Your task to perform on an android device: stop showing notifications on the lock screen Image 0: 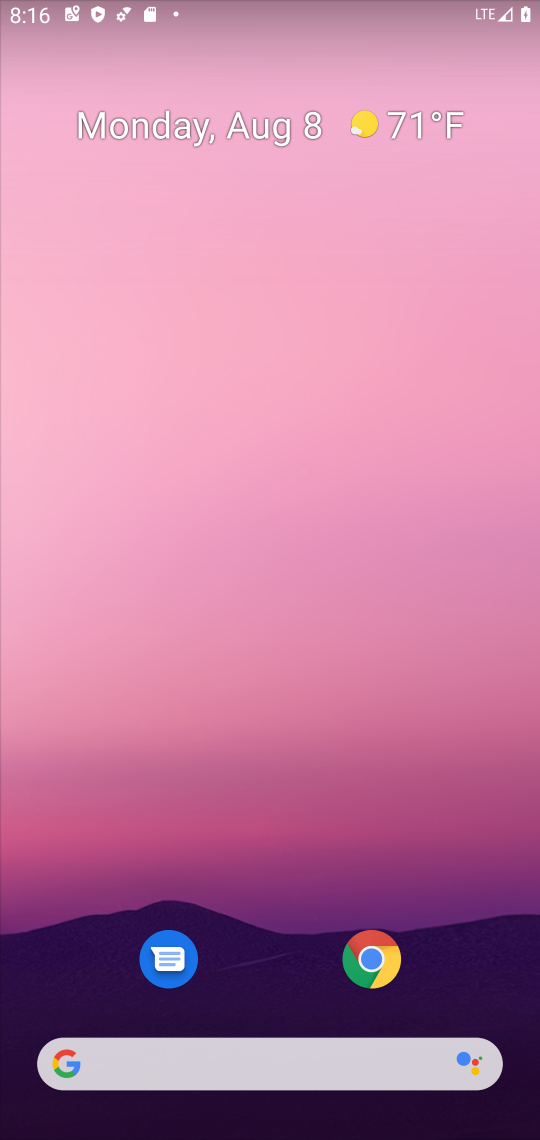
Step 0: drag from (503, 953) to (225, 22)
Your task to perform on an android device: stop showing notifications on the lock screen Image 1: 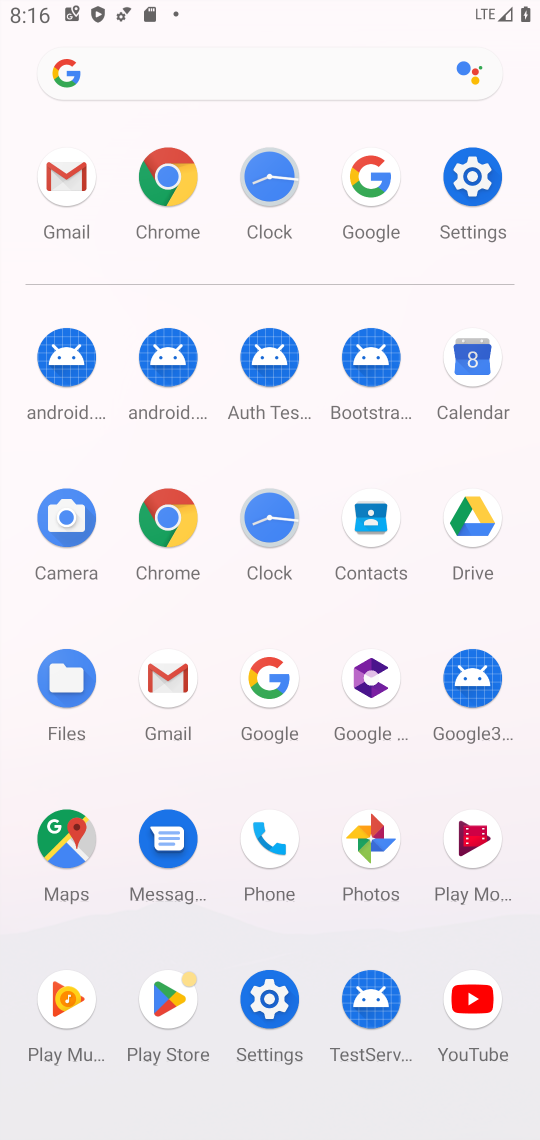
Step 1: click (265, 1008)
Your task to perform on an android device: stop showing notifications on the lock screen Image 2: 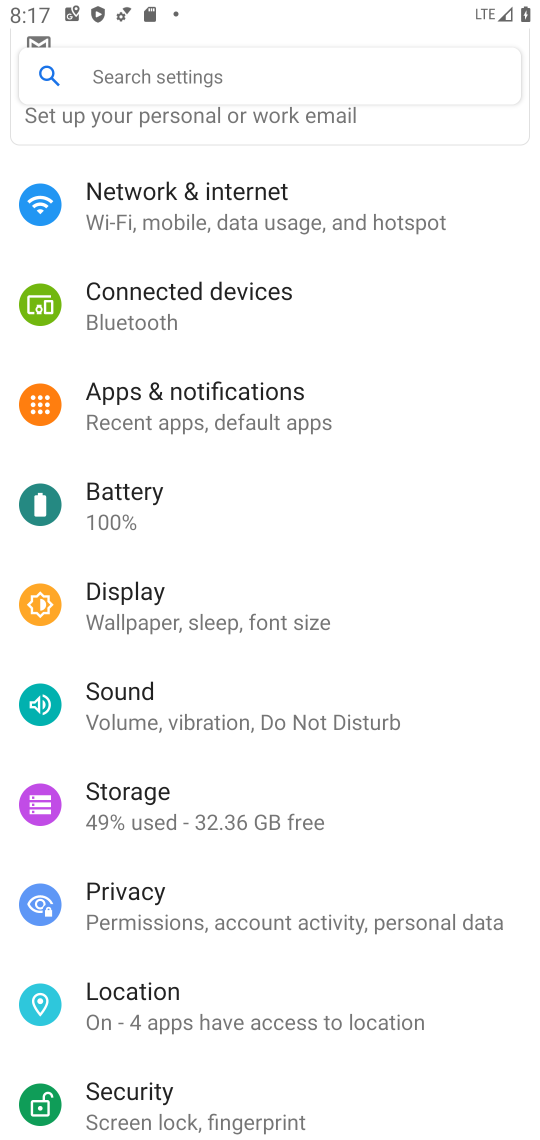
Step 2: click (226, 393)
Your task to perform on an android device: stop showing notifications on the lock screen Image 3: 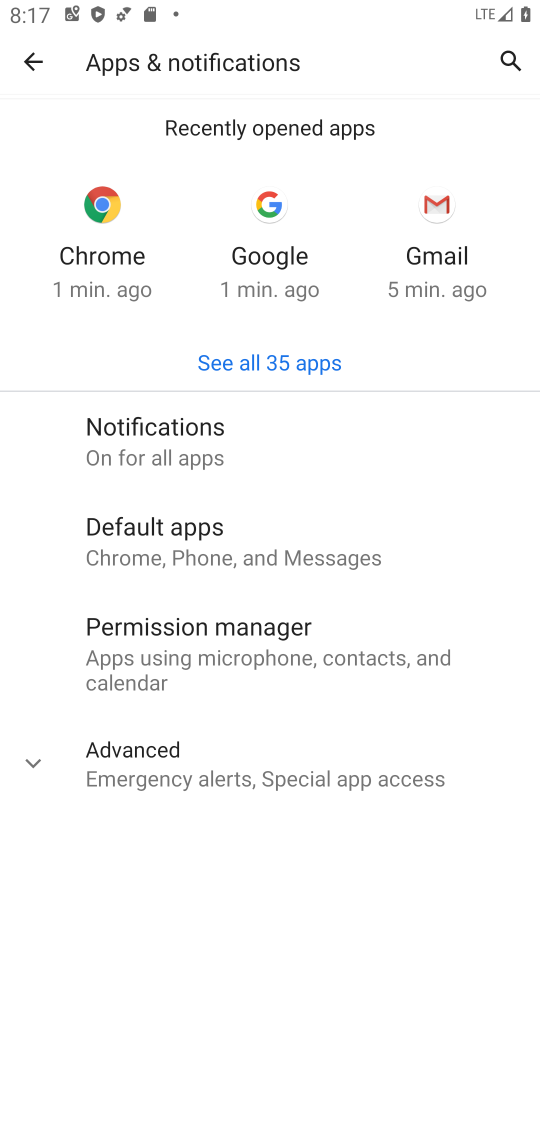
Step 3: click (248, 457)
Your task to perform on an android device: stop showing notifications on the lock screen Image 4: 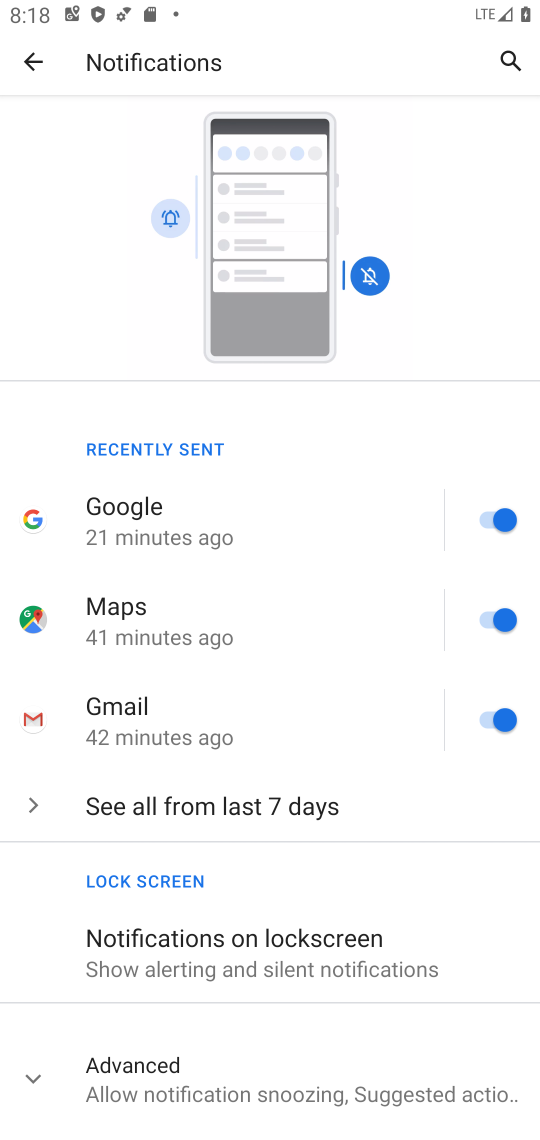
Step 4: click (266, 960)
Your task to perform on an android device: stop showing notifications on the lock screen Image 5: 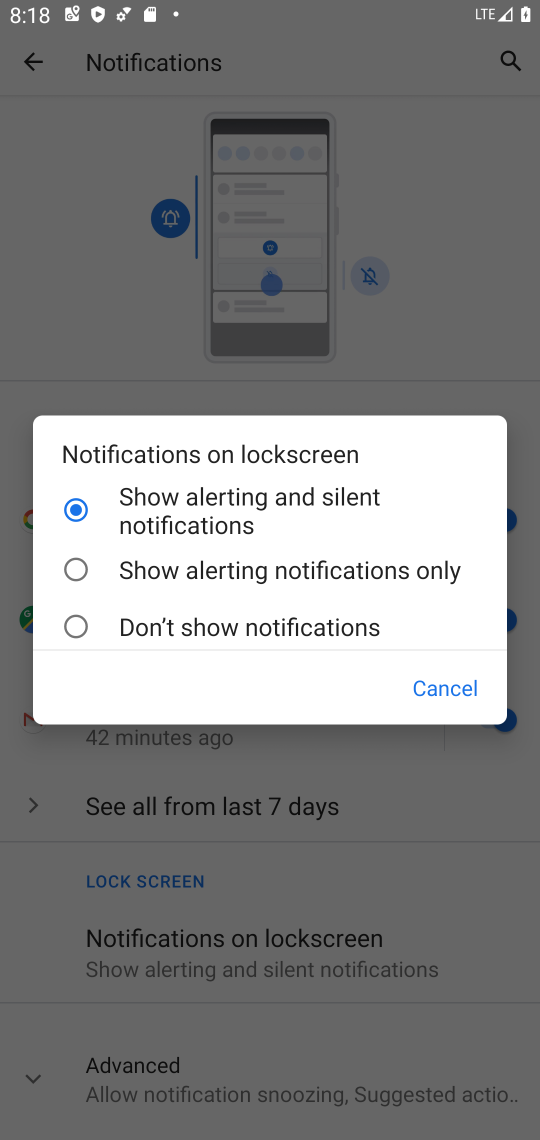
Step 5: click (185, 635)
Your task to perform on an android device: stop showing notifications on the lock screen Image 6: 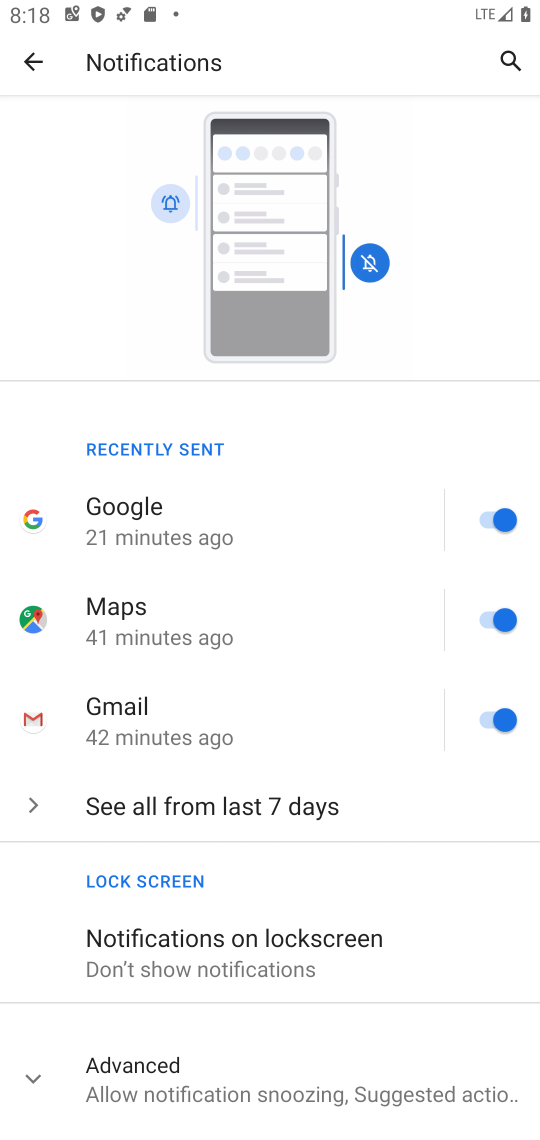
Step 6: task complete